Your task to perform on an android device: Do I have any events this weekend? Image 0: 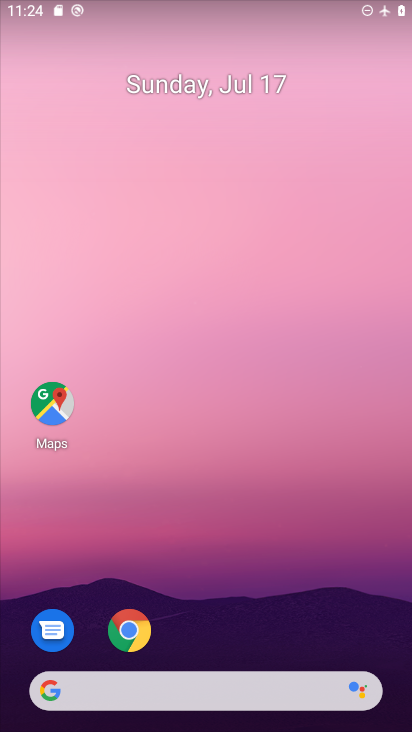
Step 0: press home button
Your task to perform on an android device: Do I have any events this weekend? Image 1: 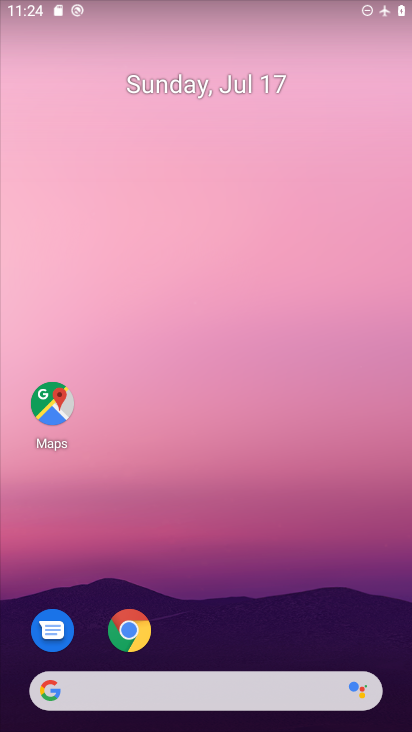
Step 1: click (134, 647)
Your task to perform on an android device: Do I have any events this weekend? Image 2: 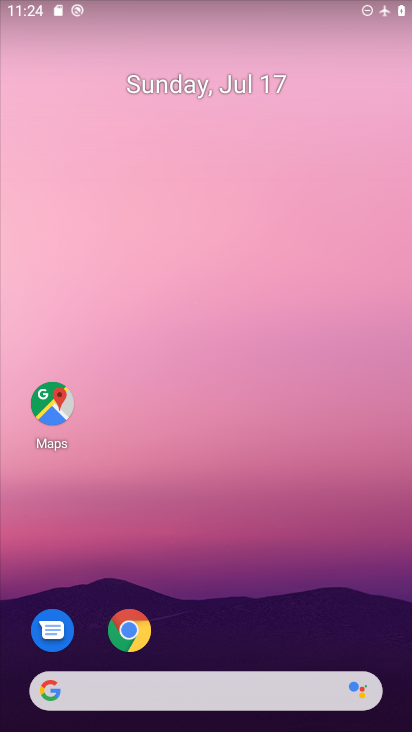
Step 2: click (134, 647)
Your task to perform on an android device: Do I have any events this weekend? Image 3: 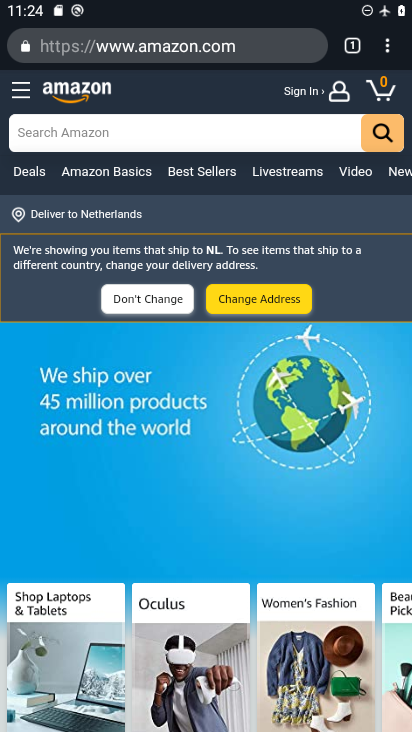
Step 3: press home button
Your task to perform on an android device: Do I have any events this weekend? Image 4: 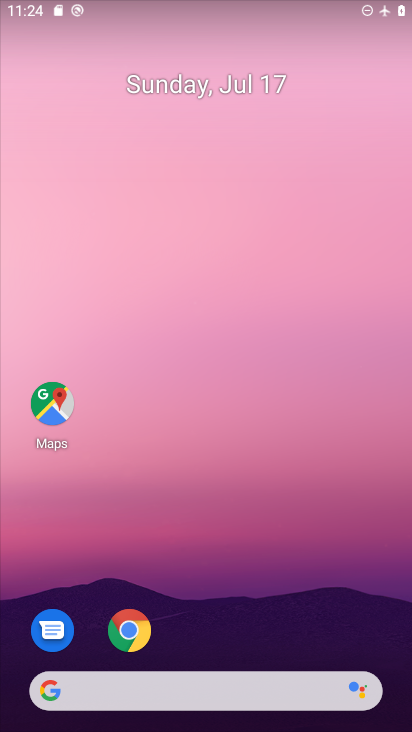
Step 4: drag from (190, 615) to (141, 173)
Your task to perform on an android device: Do I have any events this weekend? Image 5: 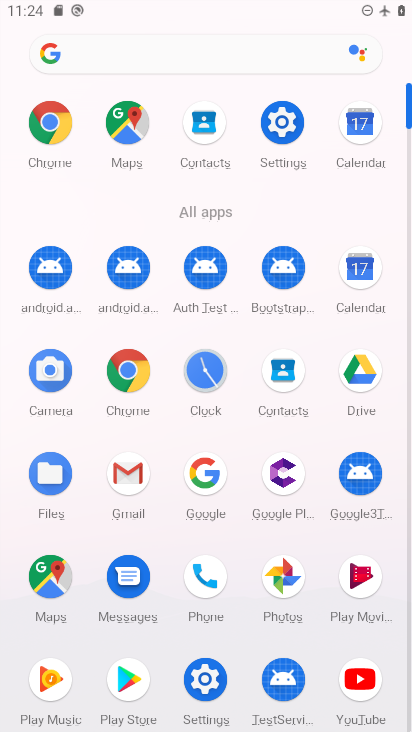
Step 5: click (353, 290)
Your task to perform on an android device: Do I have any events this weekend? Image 6: 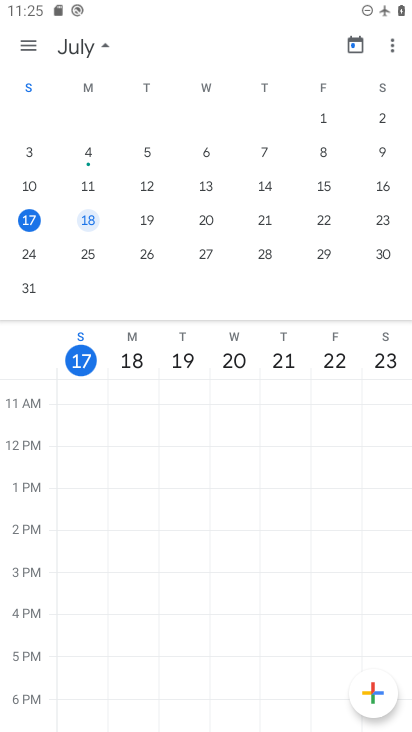
Step 6: task complete